Your task to perform on an android device: Open calendar and show me the first week of next month Image 0: 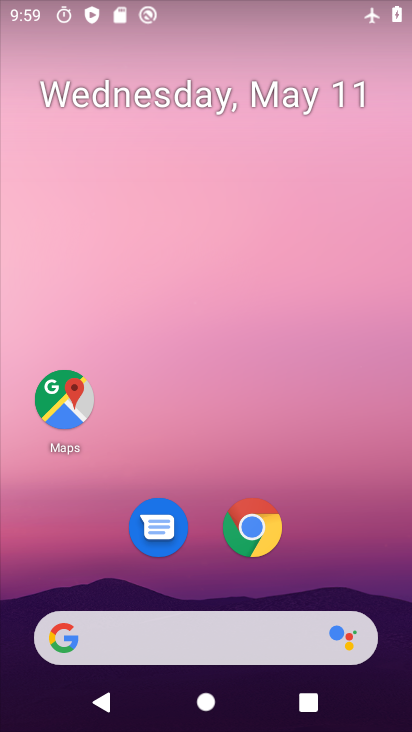
Step 0: drag from (253, 681) to (328, 145)
Your task to perform on an android device: Open calendar and show me the first week of next month Image 1: 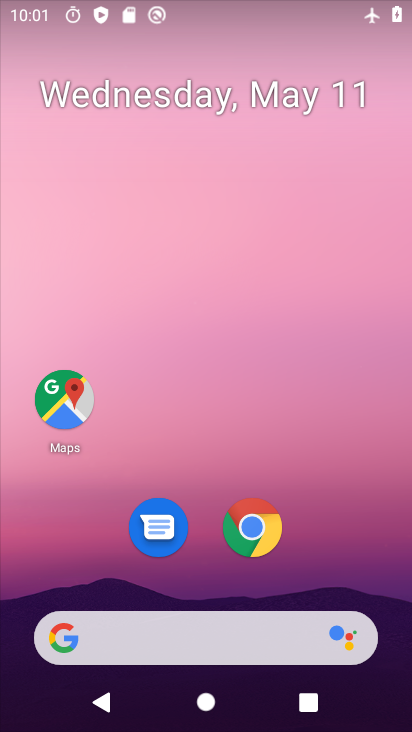
Step 1: drag from (249, 667) to (349, 147)
Your task to perform on an android device: Open calendar and show me the first week of next month Image 2: 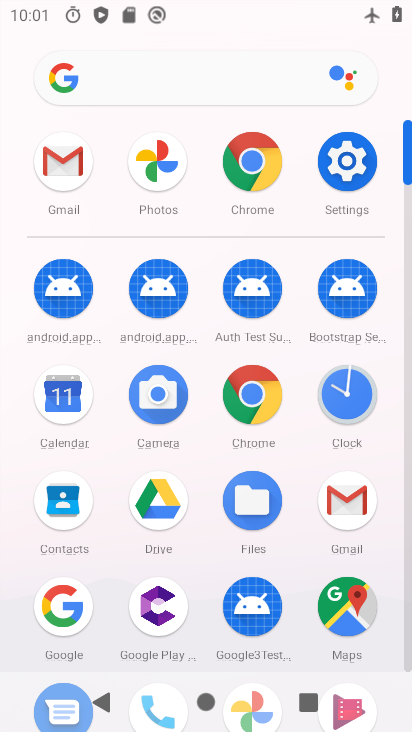
Step 2: drag from (197, 433) to (250, 212)
Your task to perform on an android device: Open calendar and show me the first week of next month Image 3: 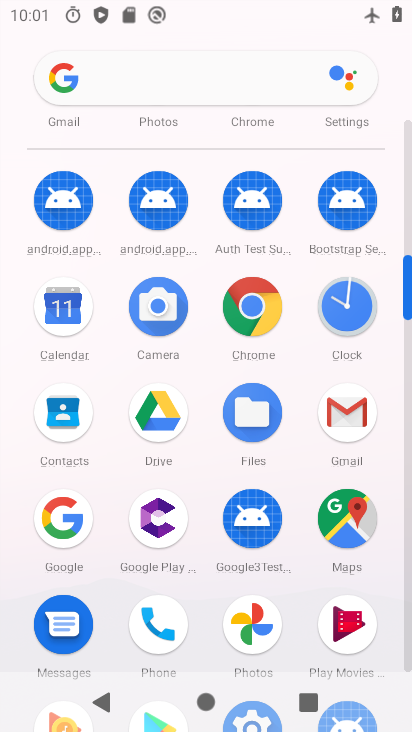
Step 3: drag from (195, 485) to (209, 396)
Your task to perform on an android device: Open calendar and show me the first week of next month Image 4: 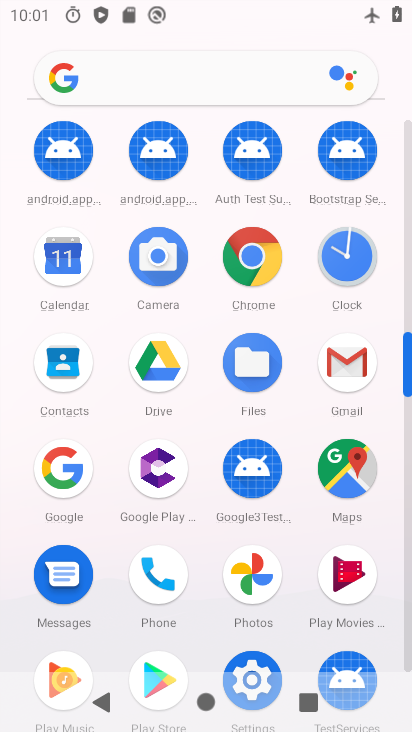
Step 4: click (62, 291)
Your task to perform on an android device: Open calendar and show me the first week of next month Image 5: 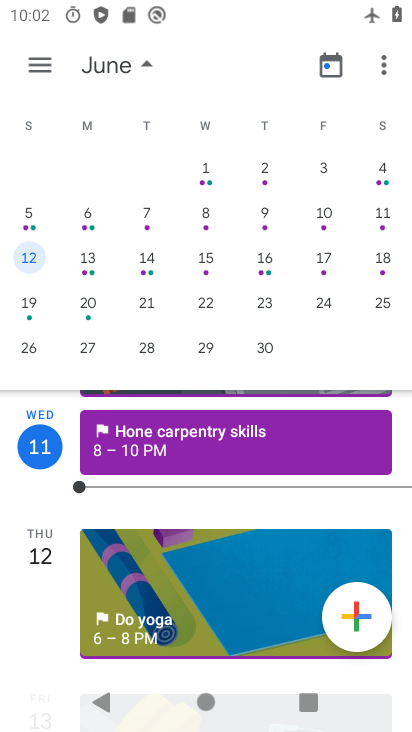
Step 5: click (18, 211)
Your task to perform on an android device: Open calendar and show me the first week of next month Image 6: 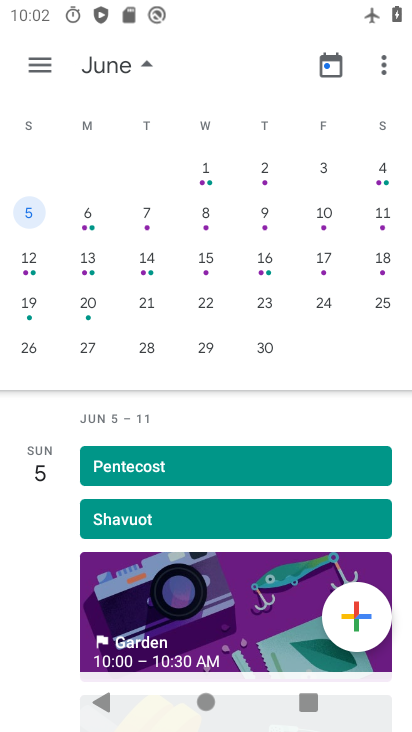
Step 6: task complete